Your task to perform on an android device: Clear the shopping cart on walmart.com. Search for logitech g502 on walmart.com, select the first entry, and add it to the cart. Image 0: 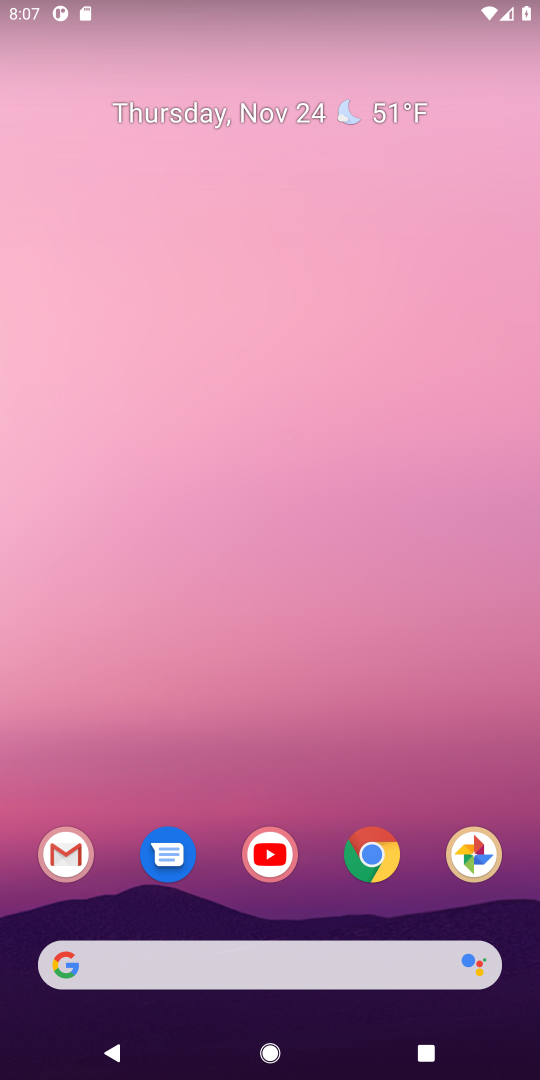
Step 0: click (372, 876)
Your task to perform on an android device: Clear the shopping cart on walmart.com. Search for logitech g502 on walmart.com, select the first entry, and add it to the cart. Image 1: 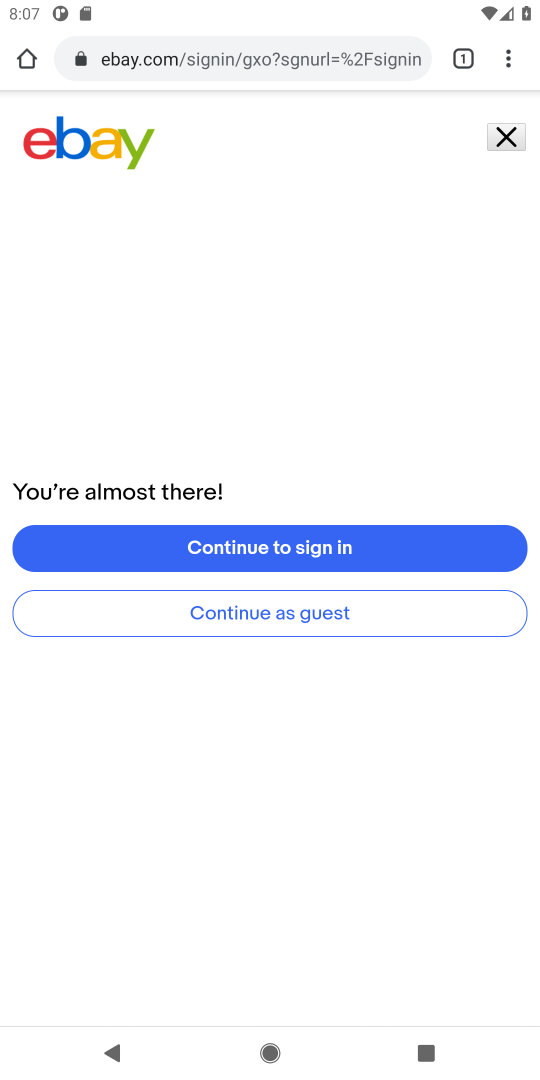
Step 1: click (174, 66)
Your task to perform on an android device: Clear the shopping cart on walmart.com. Search for logitech g502 on walmart.com, select the first entry, and add it to the cart. Image 2: 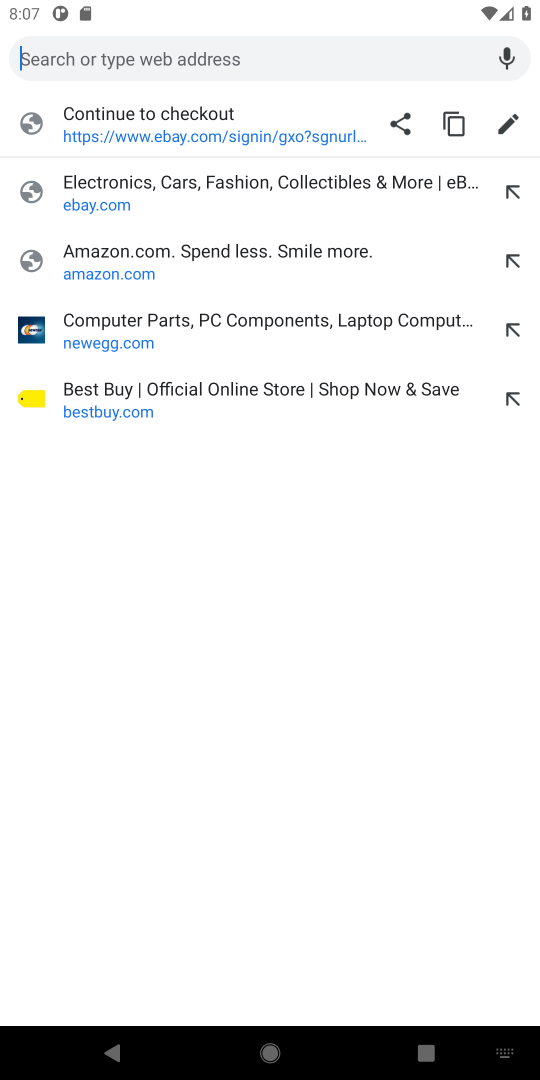
Step 2: type "walmart.com"
Your task to perform on an android device: Clear the shopping cart on walmart.com. Search for logitech g502 on walmart.com, select the first entry, and add it to the cart. Image 3: 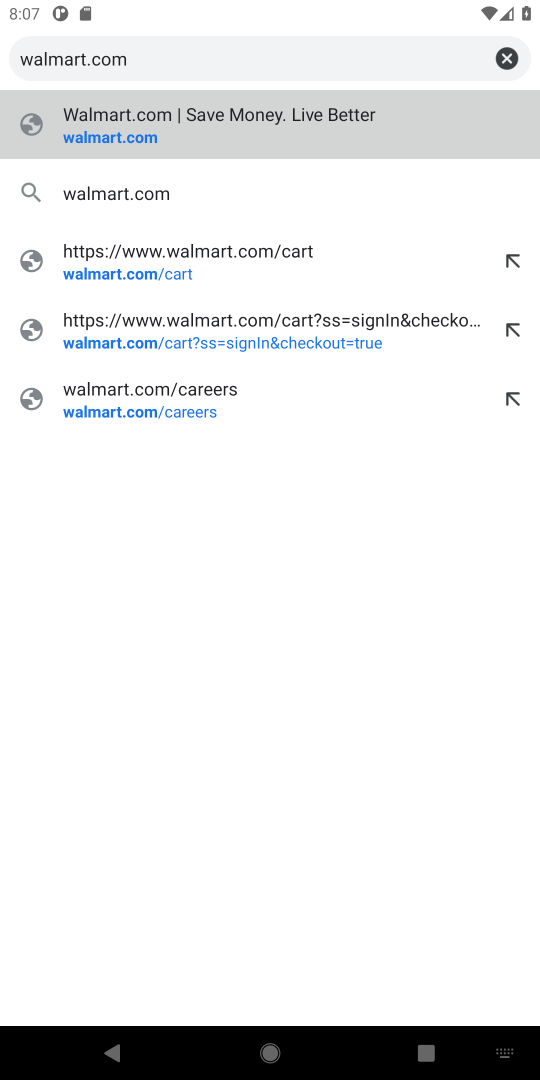
Step 3: click (92, 128)
Your task to perform on an android device: Clear the shopping cart on walmart.com. Search for logitech g502 on walmart.com, select the first entry, and add it to the cart. Image 4: 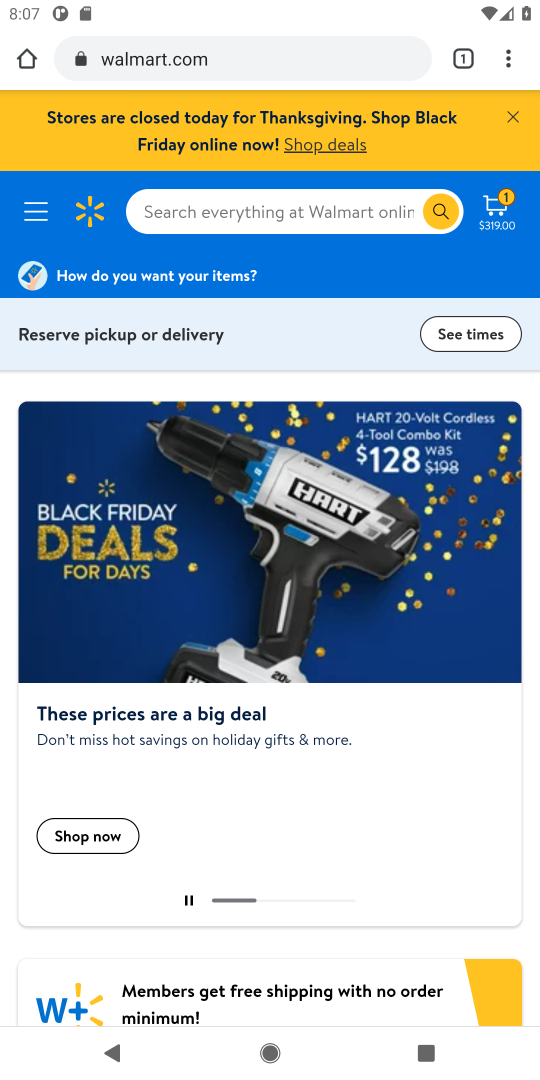
Step 4: click (497, 205)
Your task to perform on an android device: Clear the shopping cart on walmart.com. Search for logitech g502 on walmart.com, select the first entry, and add it to the cart. Image 5: 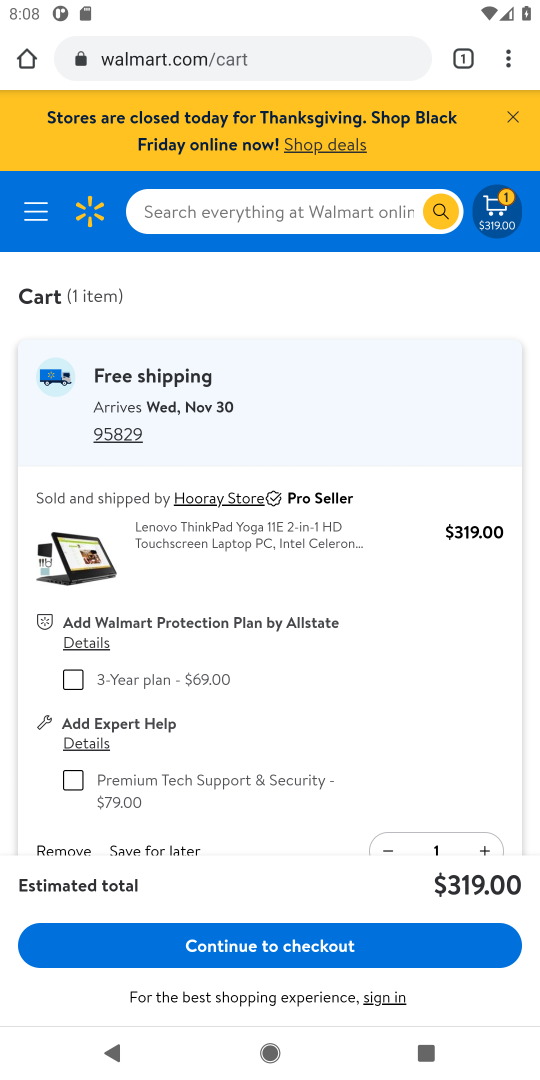
Step 5: drag from (306, 723) to (299, 500)
Your task to perform on an android device: Clear the shopping cart on walmart.com. Search for logitech g502 on walmart.com, select the first entry, and add it to the cart. Image 6: 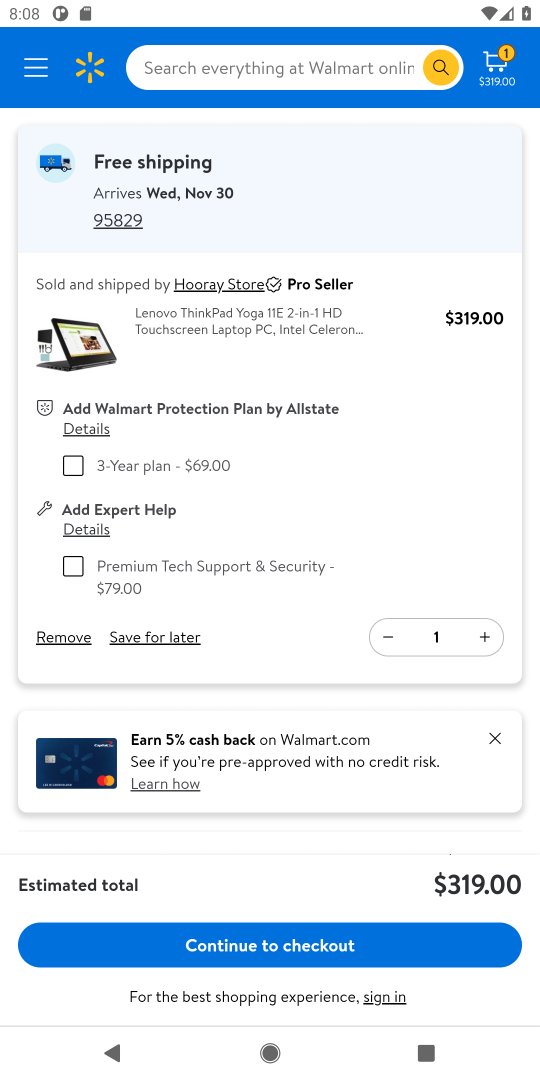
Step 6: click (57, 645)
Your task to perform on an android device: Clear the shopping cart on walmart.com. Search for logitech g502 on walmart.com, select the first entry, and add it to the cart. Image 7: 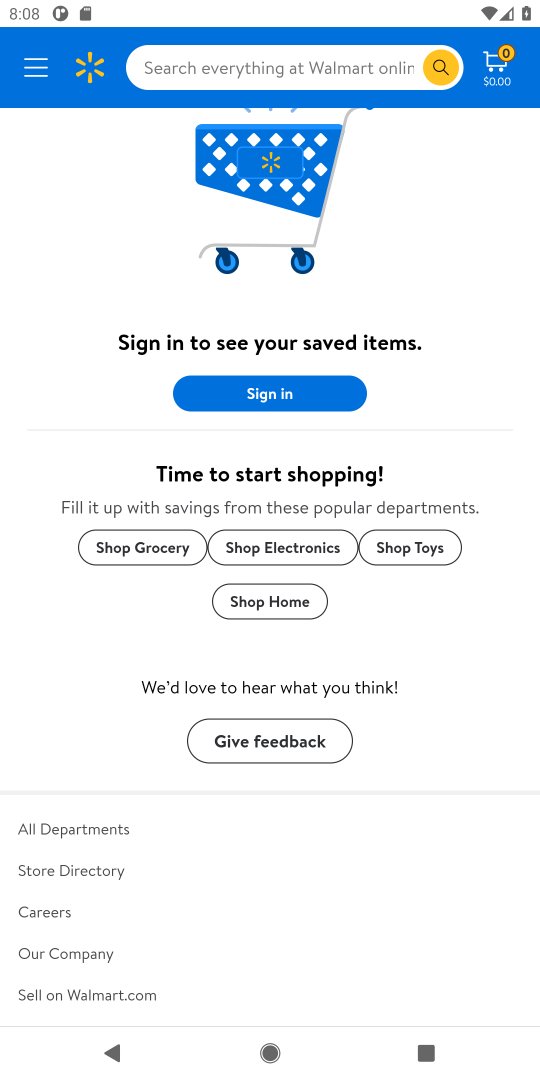
Step 7: click (207, 64)
Your task to perform on an android device: Clear the shopping cart on walmart.com. Search for logitech g502 on walmart.com, select the first entry, and add it to the cart. Image 8: 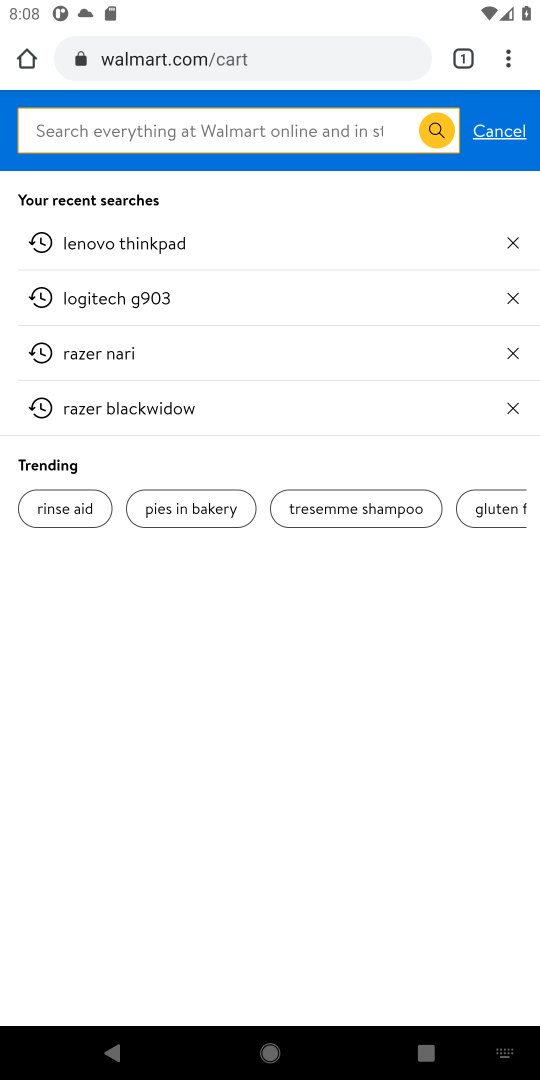
Step 8: type " logitech g502"
Your task to perform on an android device: Clear the shopping cart on walmart.com. Search for logitech g502 on walmart.com, select the first entry, and add it to the cart. Image 9: 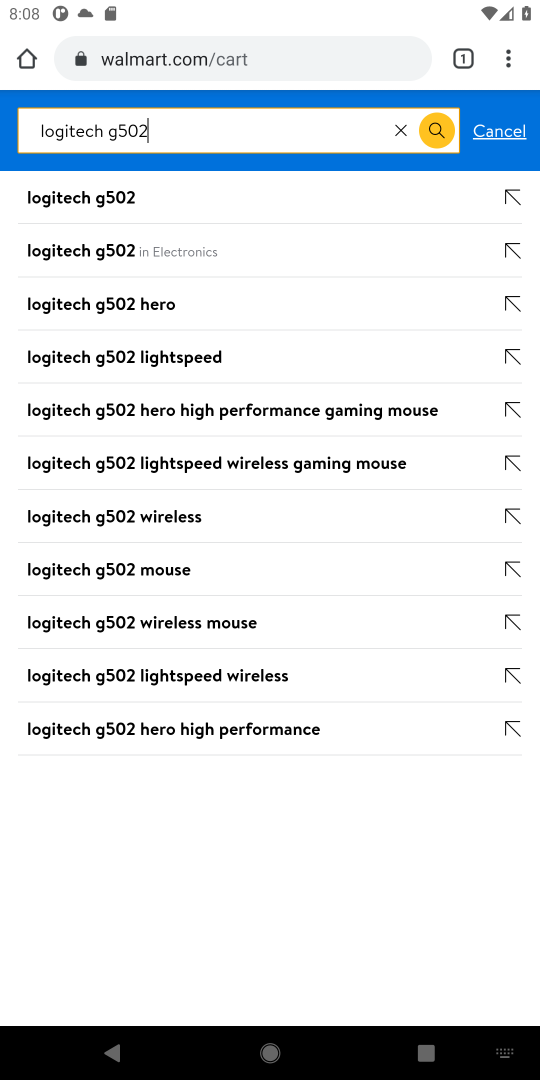
Step 9: click (67, 198)
Your task to perform on an android device: Clear the shopping cart on walmart.com. Search for logitech g502 on walmart.com, select the first entry, and add it to the cart. Image 10: 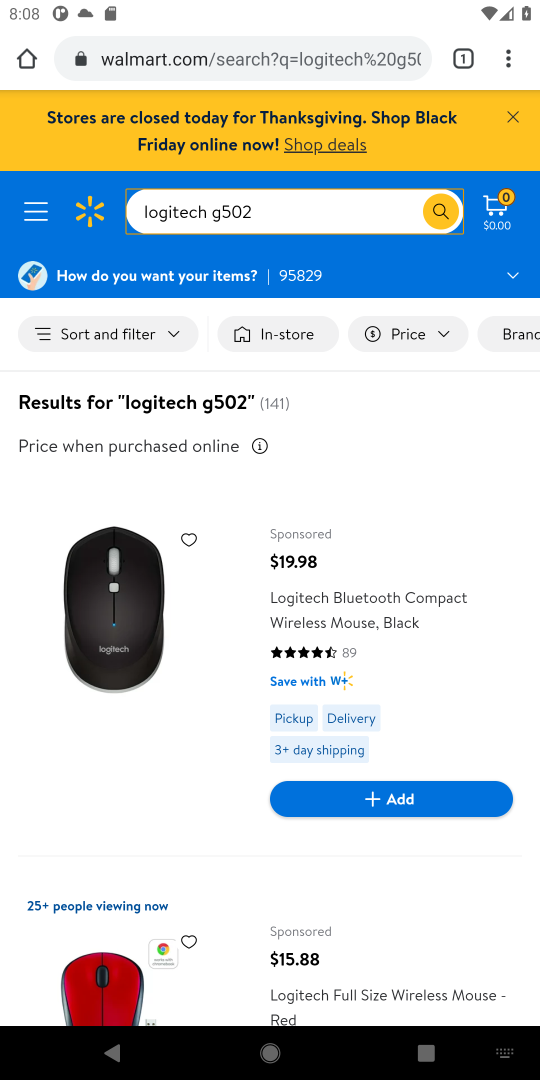
Step 10: task complete